Your task to perform on an android device: search for starred emails in the gmail app Image 0: 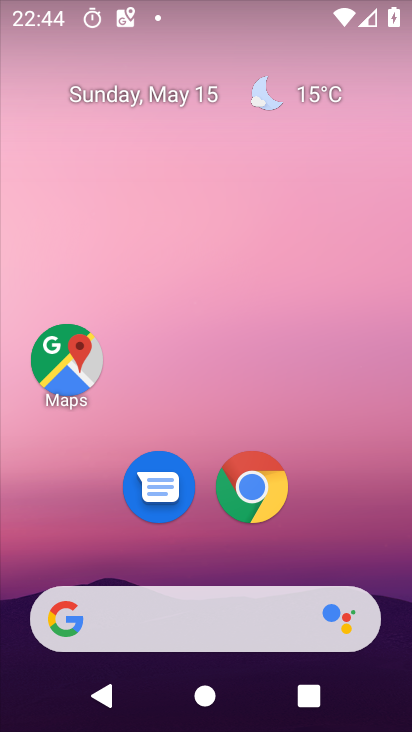
Step 0: drag from (300, 688) to (292, 101)
Your task to perform on an android device: search for starred emails in the gmail app Image 1: 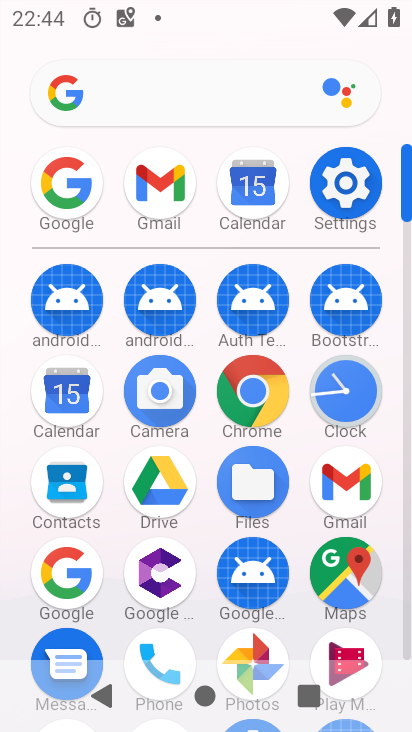
Step 1: click (361, 485)
Your task to perform on an android device: search for starred emails in the gmail app Image 2: 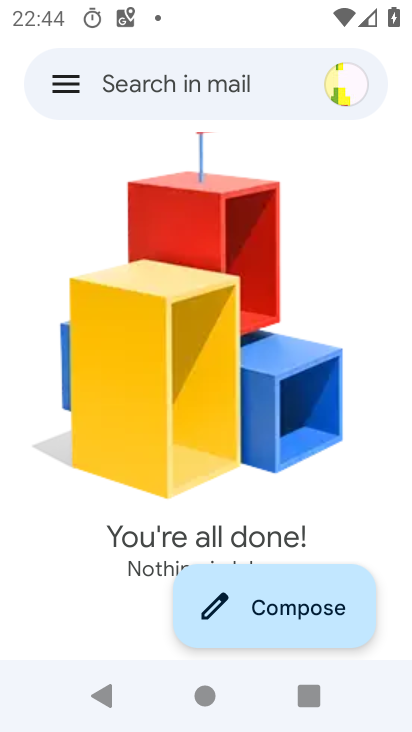
Step 2: click (57, 83)
Your task to perform on an android device: search for starred emails in the gmail app Image 3: 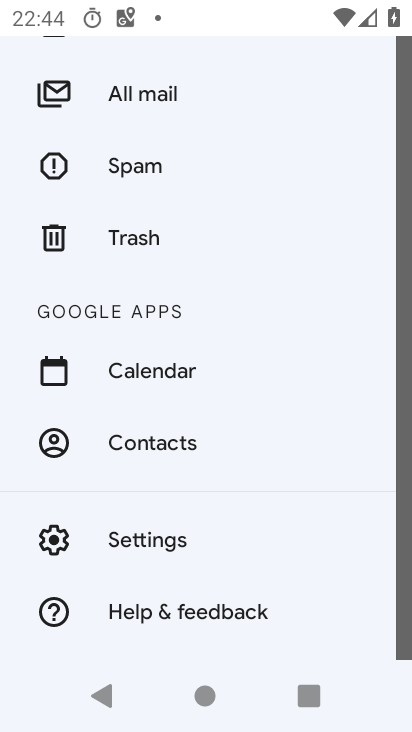
Step 3: click (165, 576)
Your task to perform on an android device: search for starred emails in the gmail app Image 4: 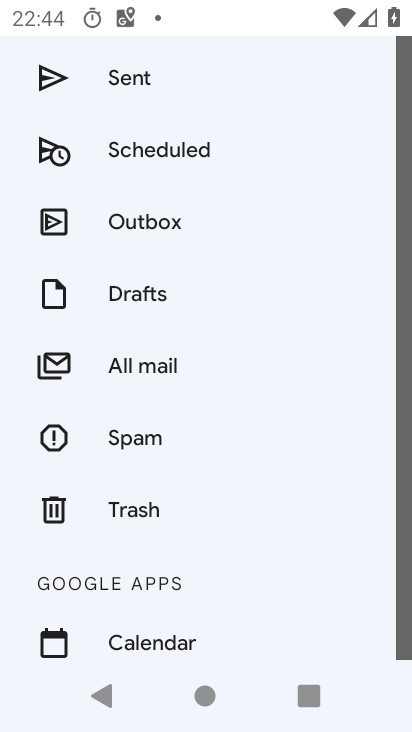
Step 4: drag from (192, 225) to (204, 488)
Your task to perform on an android device: search for starred emails in the gmail app Image 5: 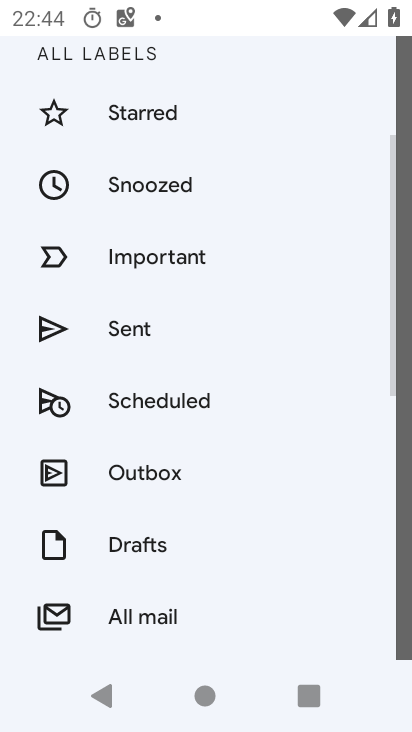
Step 5: drag from (224, 205) to (208, 437)
Your task to perform on an android device: search for starred emails in the gmail app Image 6: 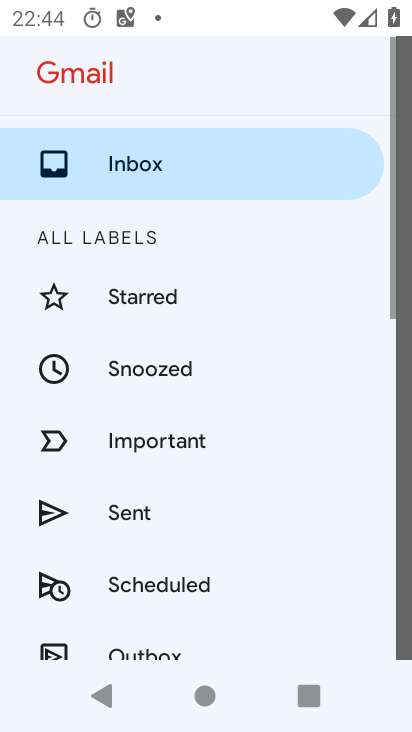
Step 6: click (143, 290)
Your task to perform on an android device: search for starred emails in the gmail app Image 7: 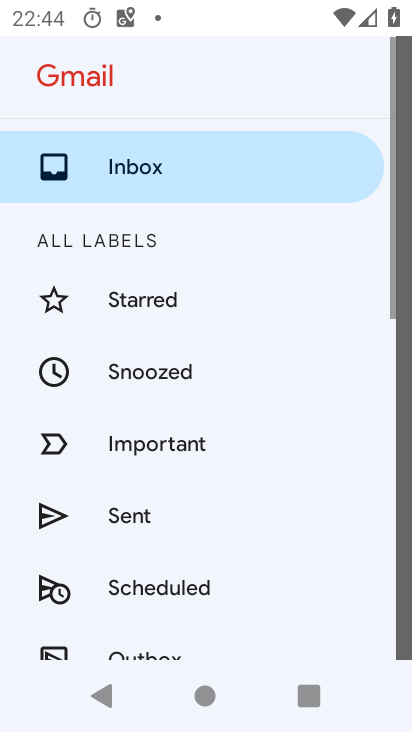
Step 7: click (143, 305)
Your task to perform on an android device: search for starred emails in the gmail app Image 8: 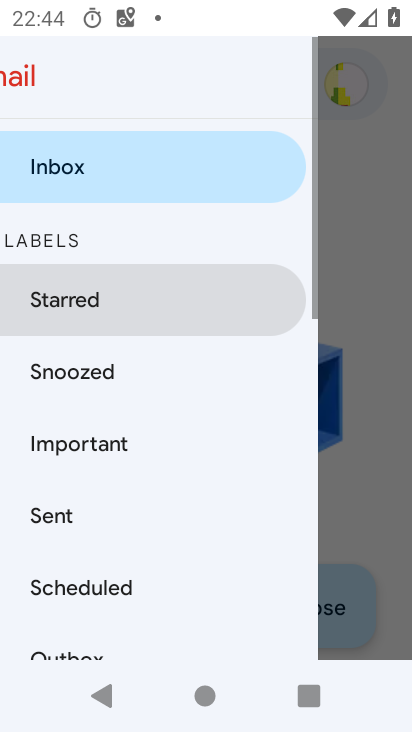
Step 8: click (143, 305)
Your task to perform on an android device: search for starred emails in the gmail app Image 9: 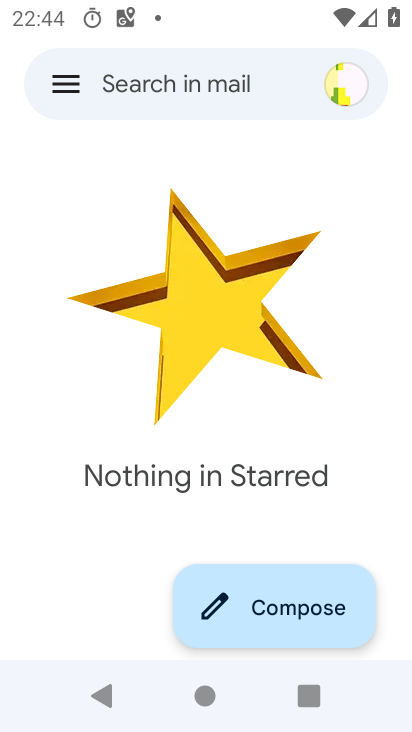
Step 9: task complete